Your task to perform on an android device: Go to wifi settings Image 0: 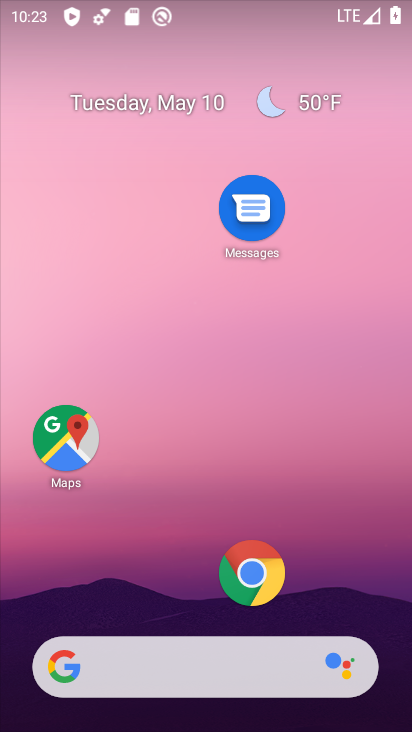
Step 0: press home button
Your task to perform on an android device: Go to wifi settings Image 1: 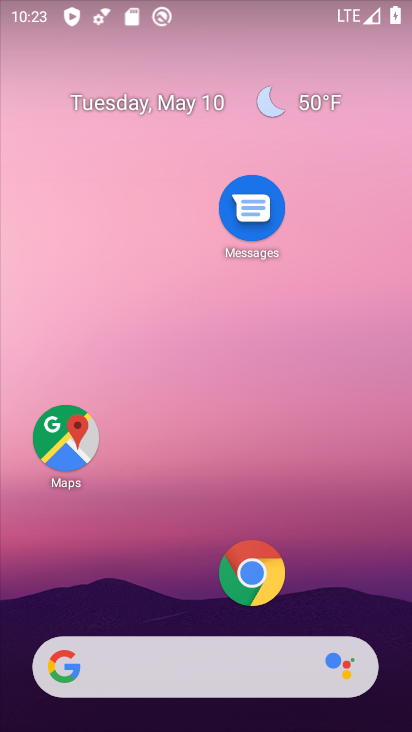
Step 1: drag from (171, 581) to (110, 45)
Your task to perform on an android device: Go to wifi settings Image 2: 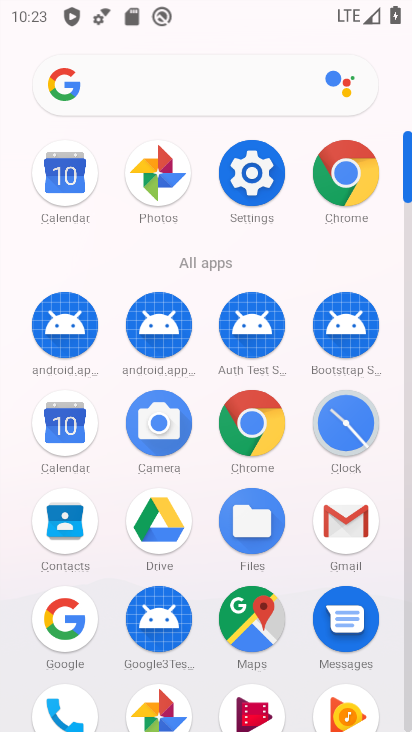
Step 2: click (254, 172)
Your task to perform on an android device: Go to wifi settings Image 3: 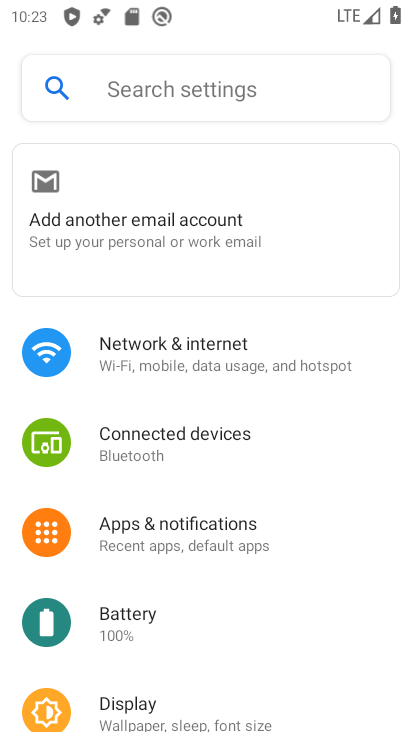
Step 3: click (217, 311)
Your task to perform on an android device: Go to wifi settings Image 4: 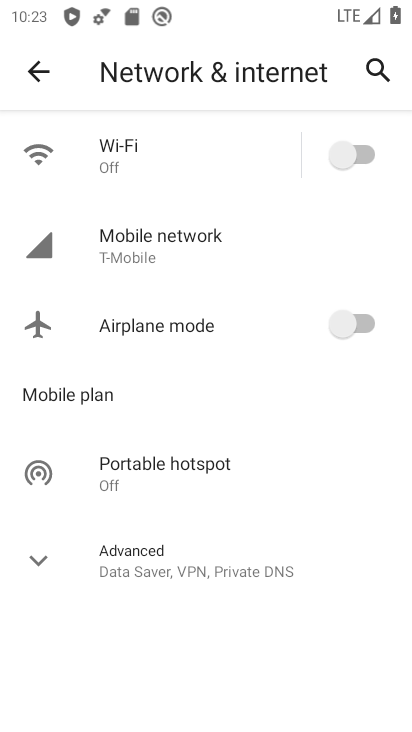
Step 4: click (171, 141)
Your task to perform on an android device: Go to wifi settings Image 5: 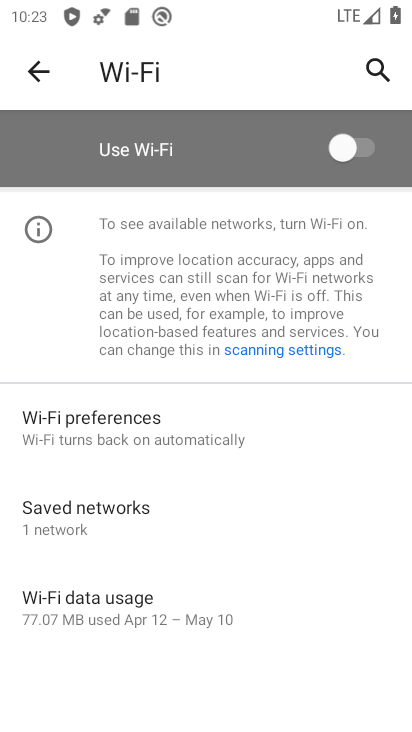
Step 5: click (346, 145)
Your task to perform on an android device: Go to wifi settings Image 6: 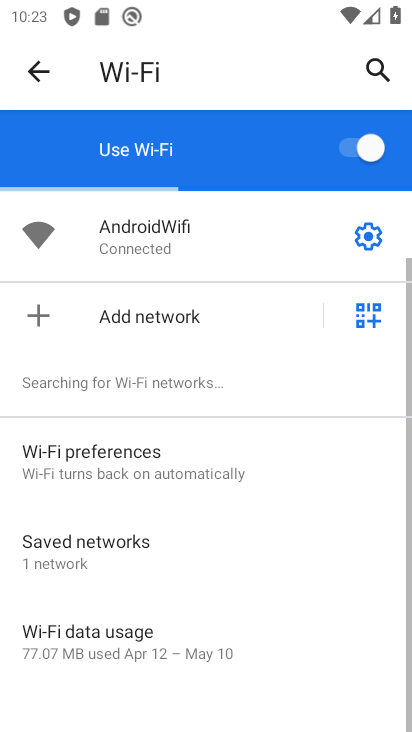
Step 6: click (367, 231)
Your task to perform on an android device: Go to wifi settings Image 7: 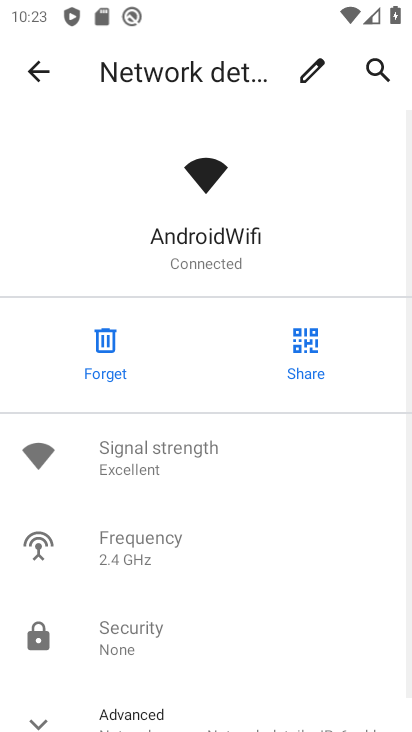
Step 7: task complete